Your task to perform on an android device: change notifications settings Image 0: 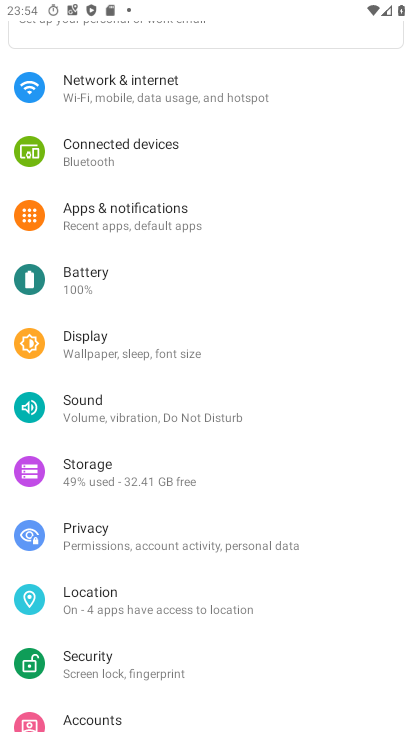
Step 0: click (112, 214)
Your task to perform on an android device: change notifications settings Image 1: 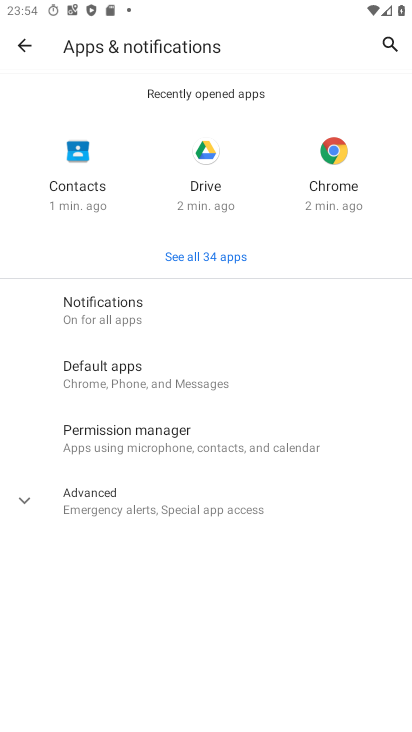
Step 1: task complete